Your task to perform on an android device: Open calendar and show me the third week of next month Image 0: 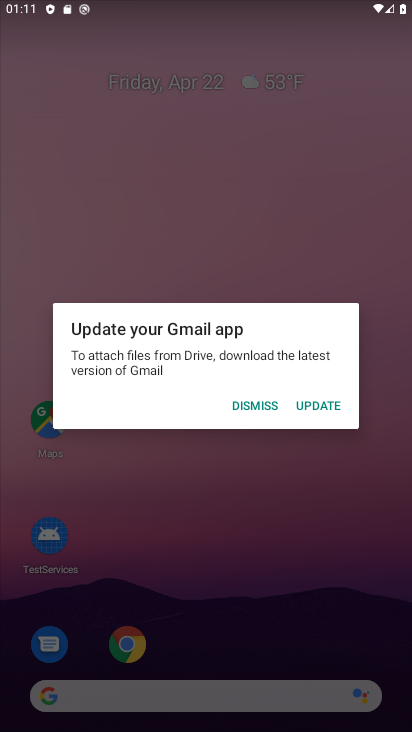
Step 0: press home button
Your task to perform on an android device: Open calendar and show me the third week of next month Image 1: 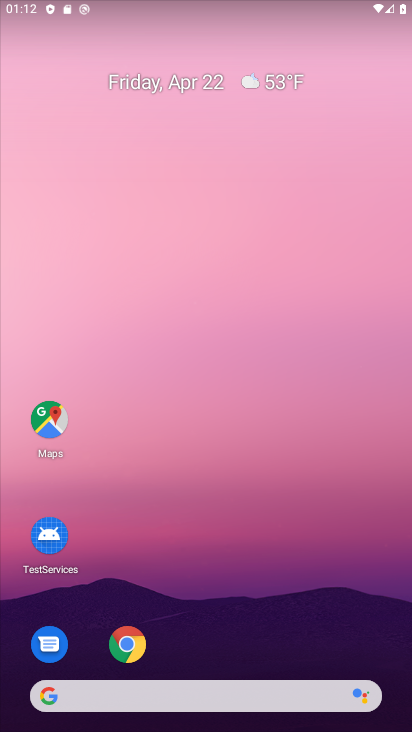
Step 1: drag from (297, 637) to (257, 176)
Your task to perform on an android device: Open calendar and show me the third week of next month Image 2: 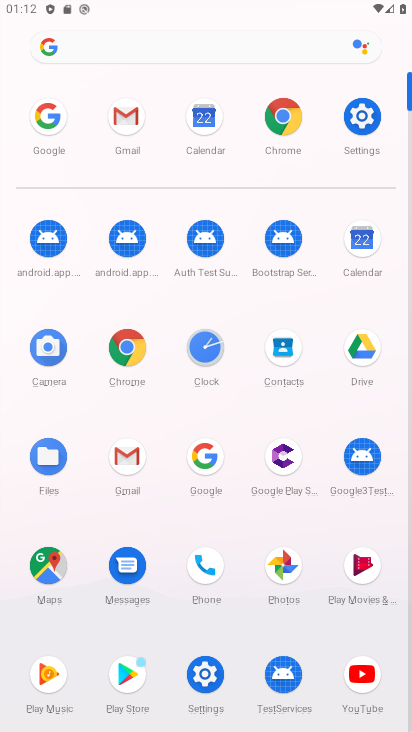
Step 2: click (365, 238)
Your task to perform on an android device: Open calendar and show me the third week of next month Image 3: 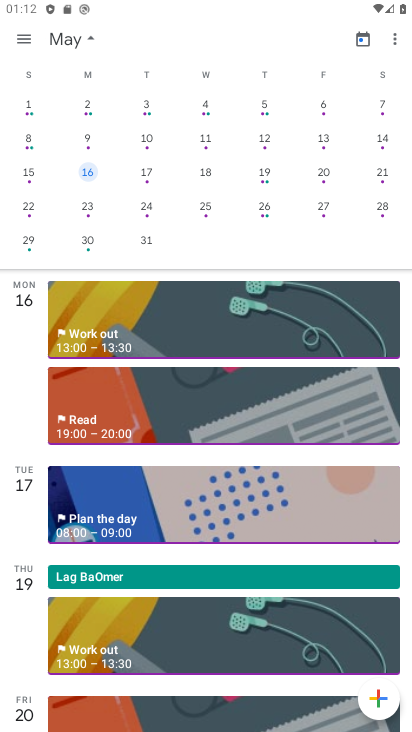
Step 3: task complete